Your task to perform on an android device: Go to eBay Image 0: 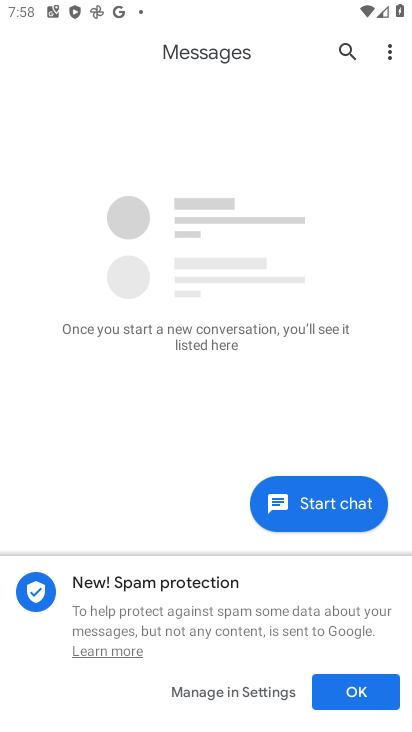
Step 0: press home button
Your task to perform on an android device: Go to eBay Image 1: 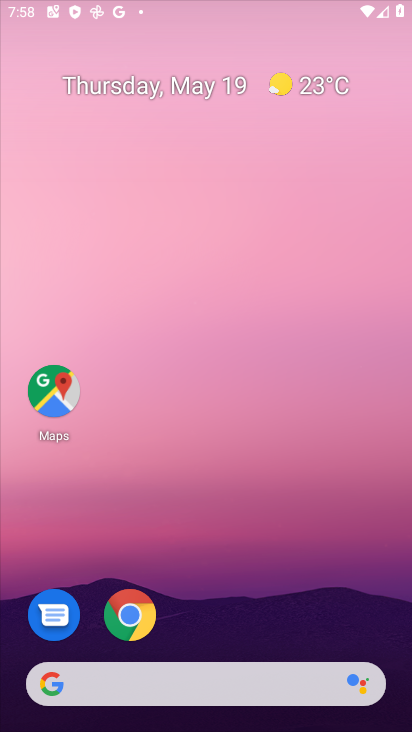
Step 1: drag from (394, 614) to (330, 88)
Your task to perform on an android device: Go to eBay Image 2: 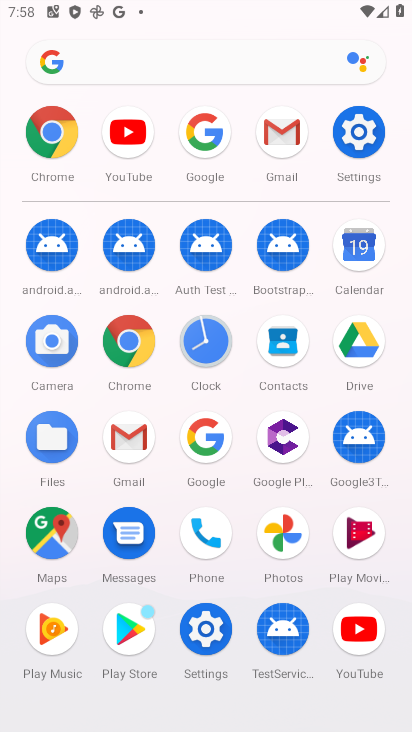
Step 2: click (204, 434)
Your task to perform on an android device: Go to eBay Image 3: 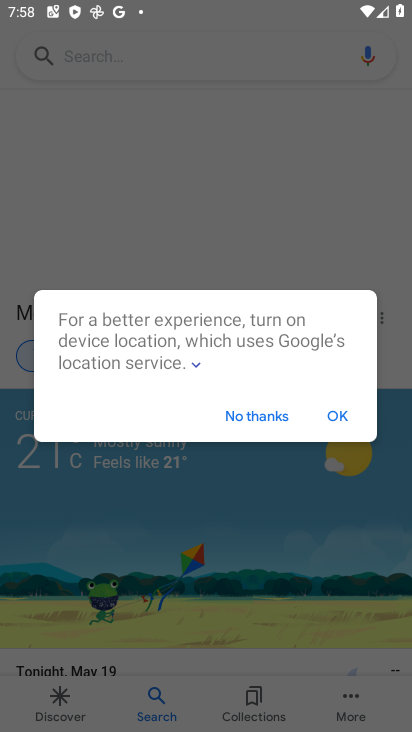
Step 3: press back button
Your task to perform on an android device: Go to eBay Image 4: 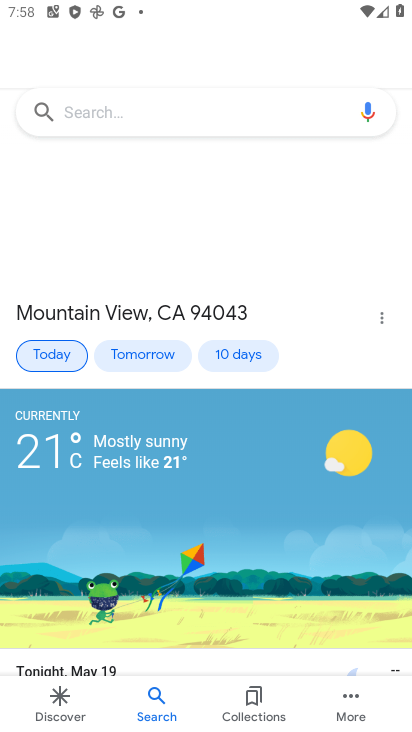
Step 4: click (208, 427)
Your task to perform on an android device: Go to eBay Image 5: 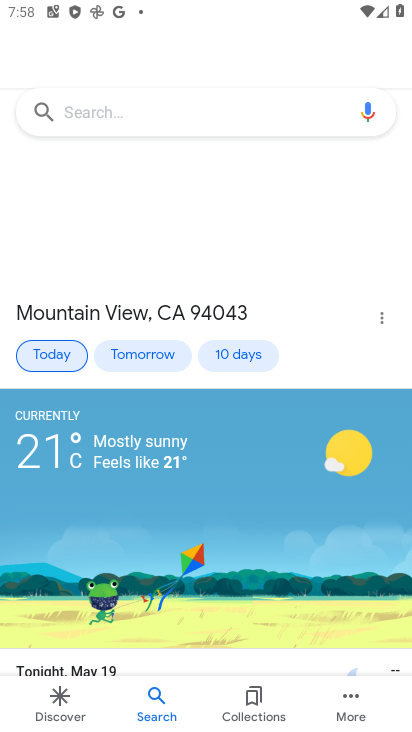
Step 5: click (170, 104)
Your task to perform on an android device: Go to eBay Image 6: 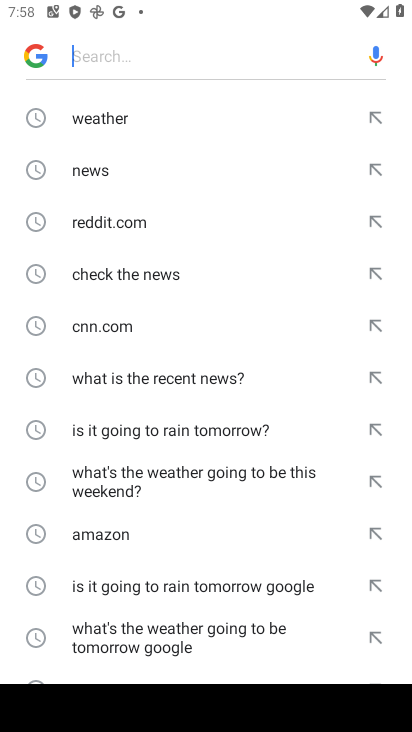
Step 6: drag from (131, 564) to (182, 155)
Your task to perform on an android device: Go to eBay Image 7: 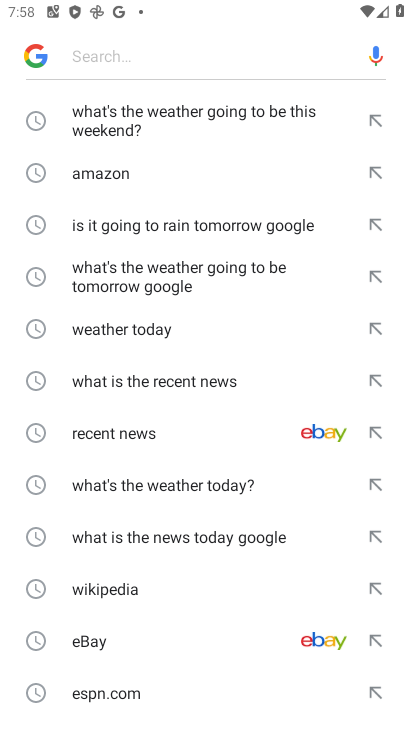
Step 7: click (120, 639)
Your task to perform on an android device: Go to eBay Image 8: 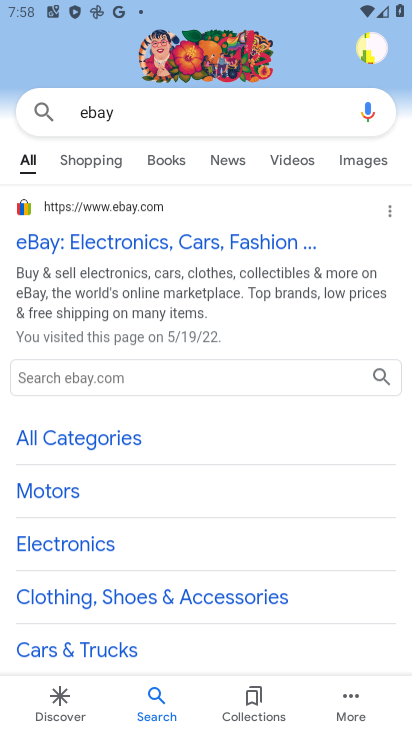
Step 8: task complete